Your task to perform on an android device: turn on the 24-hour format for clock Image 0: 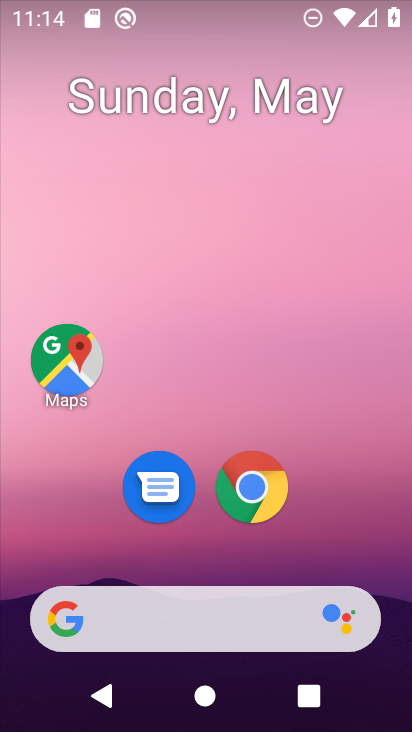
Step 0: click (76, 371)
Your task to perform on an android device: turn on the 24-hour format for clock Image 1: 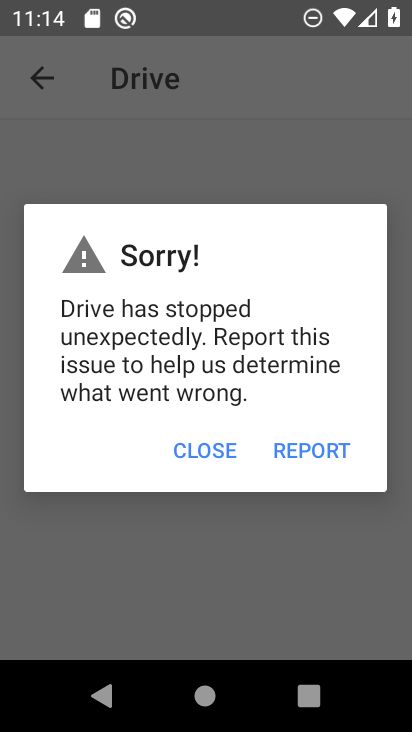
Step 1: press home button
Your task to perform on an android device: turn on the 24-hour format for clock Image 2: 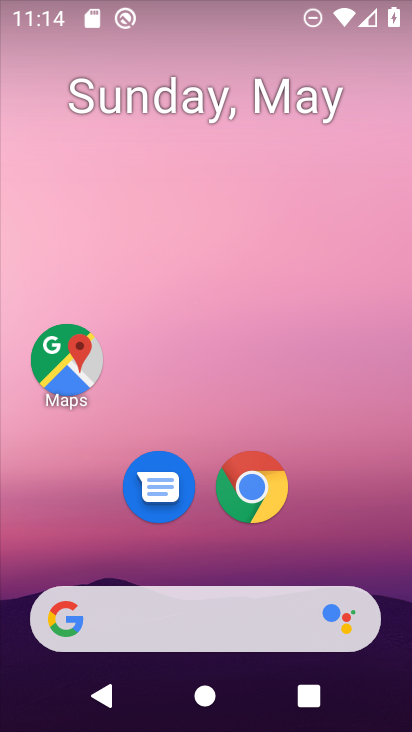
Step 2: drag from (344, 509) to (267, 186)
Your task to perform on an android device: turn on the 24-hour format for clock Image 3: 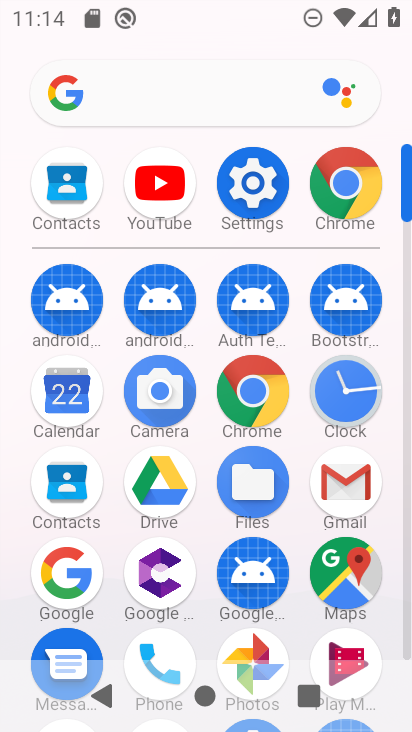
Step 3: click (361, 401)
Your task to perform on an android device: turn on the 24-hour format for clock Image 4: 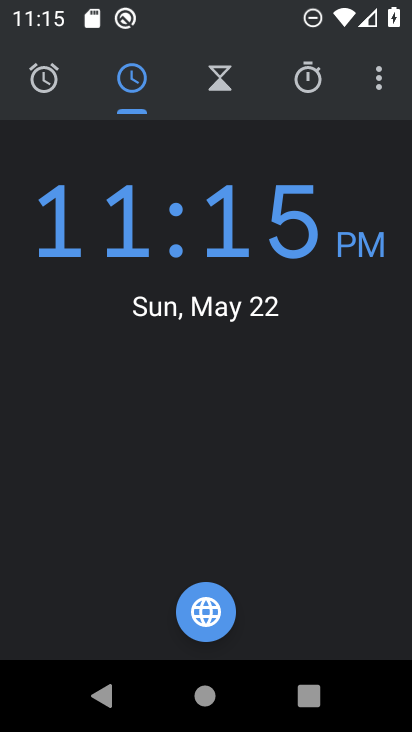
Step 4: click (378, 92)
Your task to perform on an android device: turn on the 24-hour format for clock Image 5: 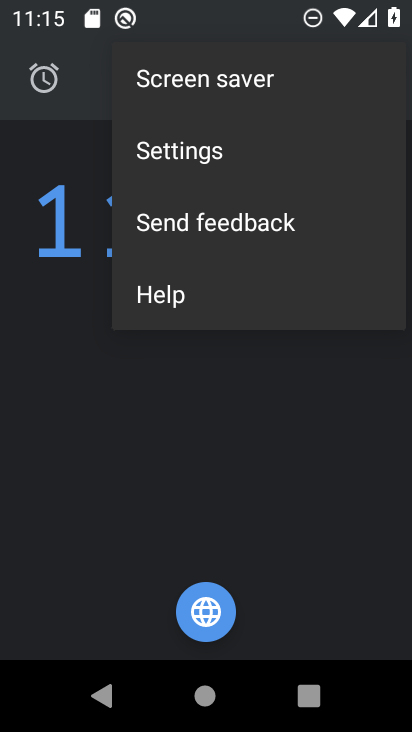
Step 5: click (305, 144)
Your task to perform on an android device: turn on the 24-hour format for clock Image 6: 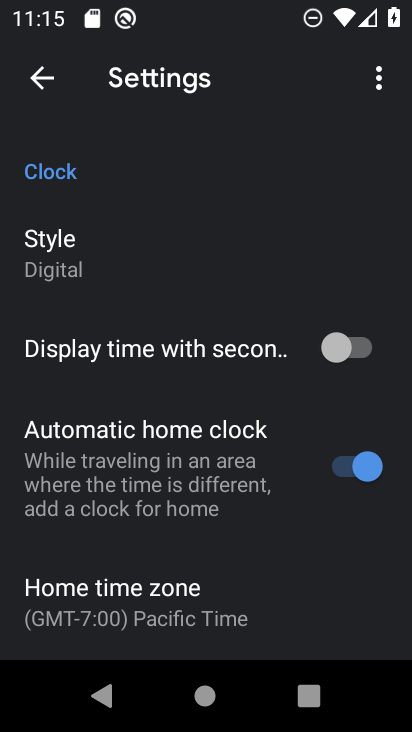
Step 6: drag from (305, 589) to (219, 42)
Your task to perform on an android device: turn on the 24-hour format for clock Image 7: 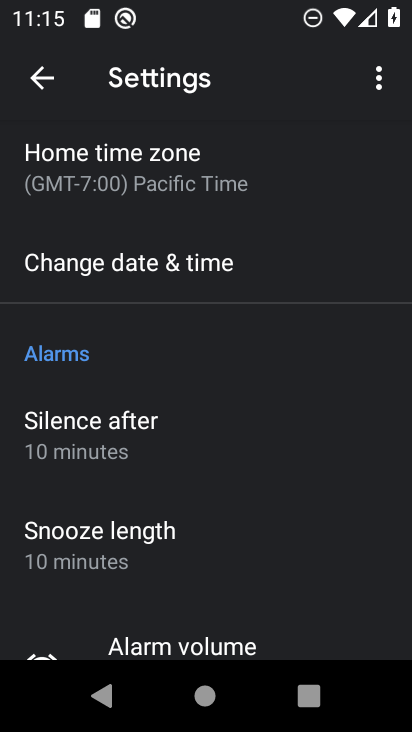
Step 7: click (245, 281)
Your task to perform on an android device: turn on the 24-hour format for clock Image 8: 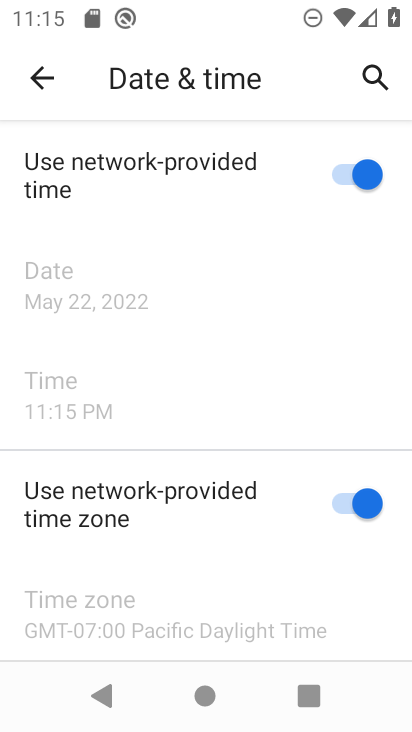
Step 8: drag from (290, 556) to (244, 205)
Your task to perform on an android device: turn on the 24-hour format for clock Image 9: 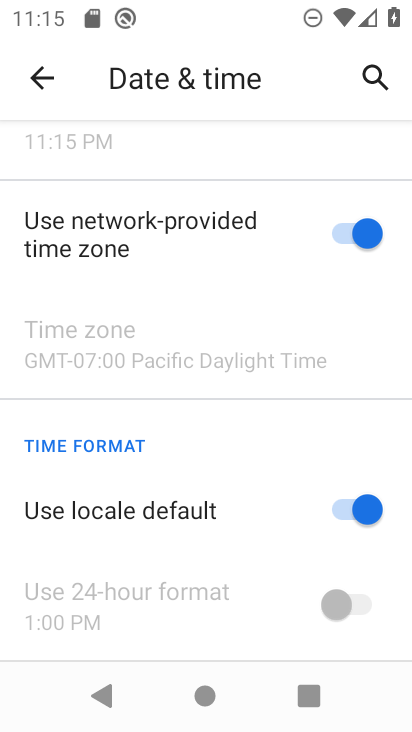
Step 9: drag from (279, 573) to (243, 371)
Your task to perform on an android device: turn on the 24-hour format for clock Image 10: 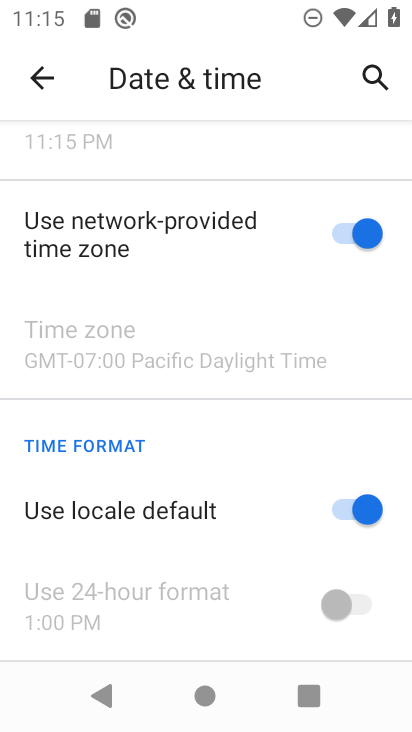
Step 10: click (343, 501)
Your task to perform on an android device: turn on the 24-hour format for clock Image 11: 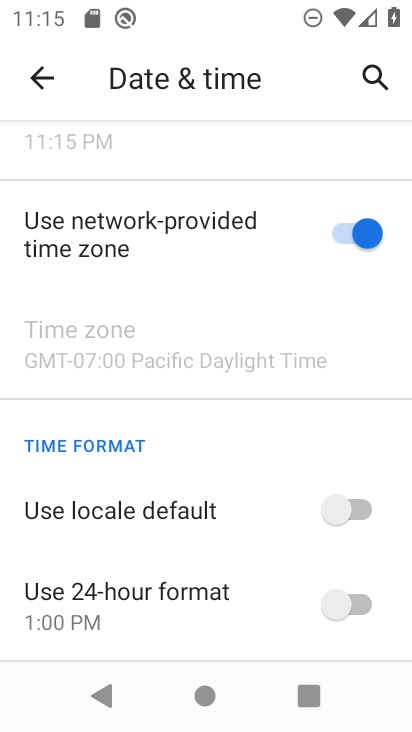
Step 11: click (359, 613)
Your task to perform on an android device: turn on the 24-hour format for clock Image 12: 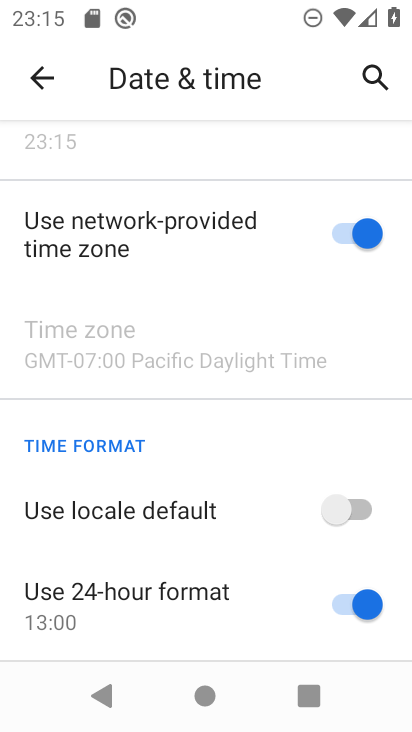
Step 12: task complete